Your task to perform on an android device: open the mobile data screen to see how much data has been used Image 0: 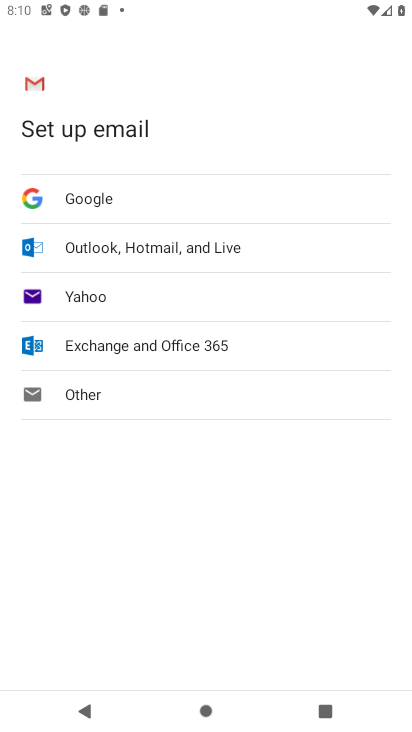
Step 0: press home button
Your task to perform on an android device: open the mobile data screen to see how much data has been used Image 1: 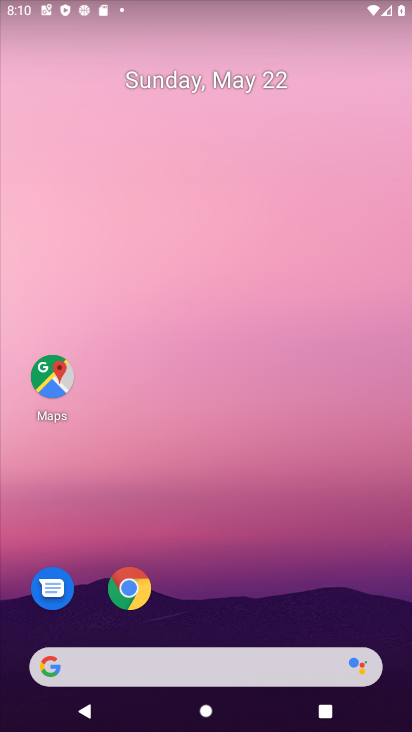
Step 1: drag from (242, 535) to (129, 26)
Your task to perform on an android device: open the mobile data screen to see how much data has been used Image 2: 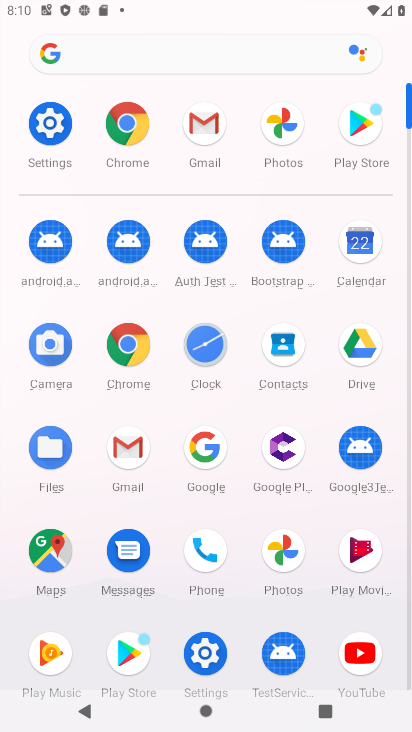
Step 2: click (46, 116)
Your task to perform on an android device: open the mobile data screen to see how much data has been used Image 3: 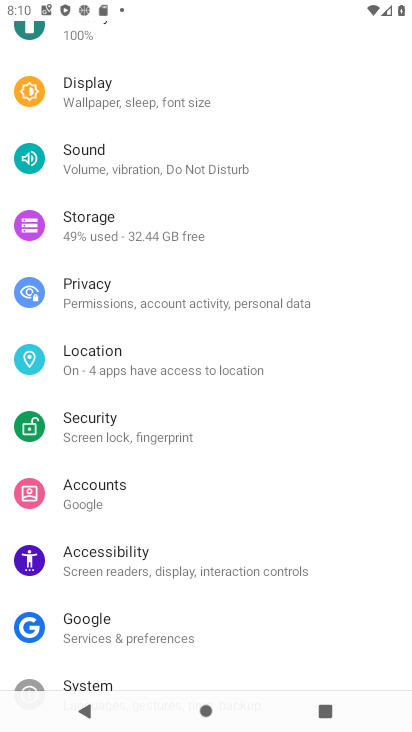
Step 3: drag from (202, 119) to (231, 719)
Your task to perform on an android device: open the mobile data screen to see how much data has been used Image 4: 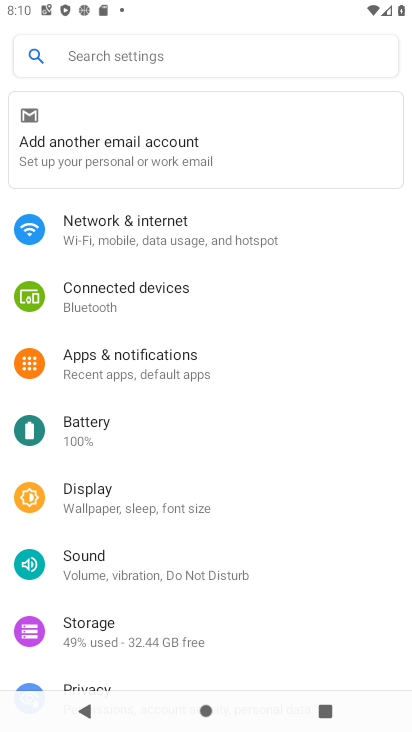
Step 4: click (112, 217)
Your task to perform on an android device: open the mobile data screen to see how much data has been used Image 5: 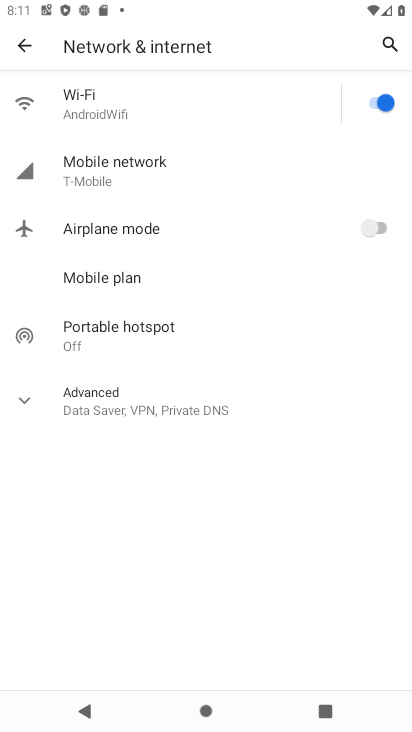
Step 5: click (121, 163)
Your task to perform on an android device: open the mobile data screen to see how much data has been used Image 6: 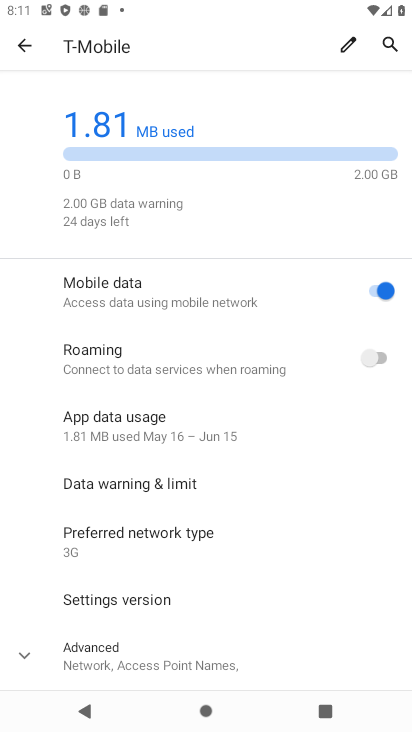
Step 6: task complete